Your task to perform on an android device: Go to Reddit.com Image 0: 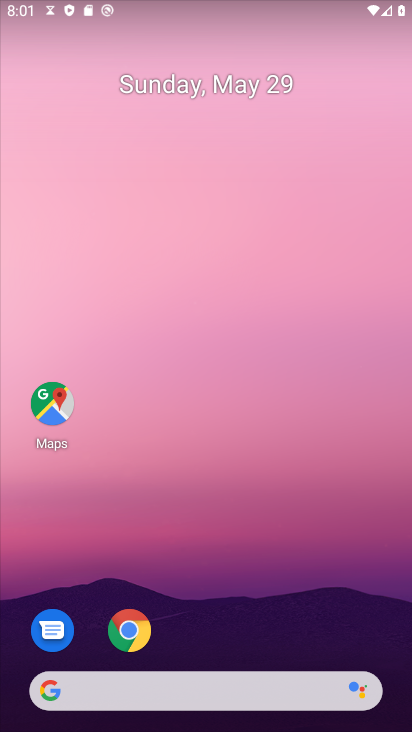
Step 0: click (143, 639)
Your task to perform on an android device: Go to Reddit.com Image 1: 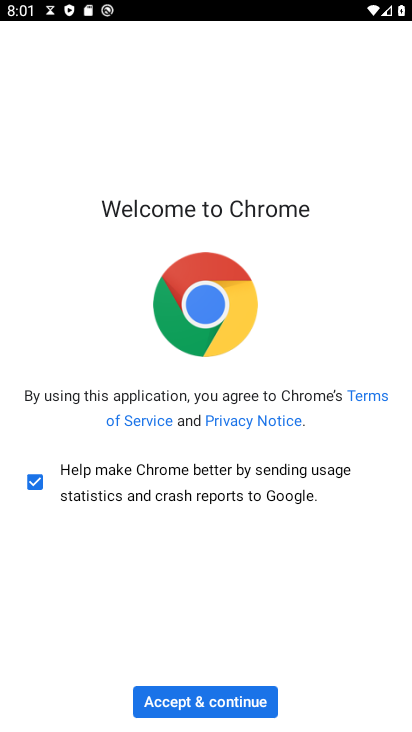
Step 1: click (232, 688)
Your task to perform on an android device: Go to Reddit.com Image 2: 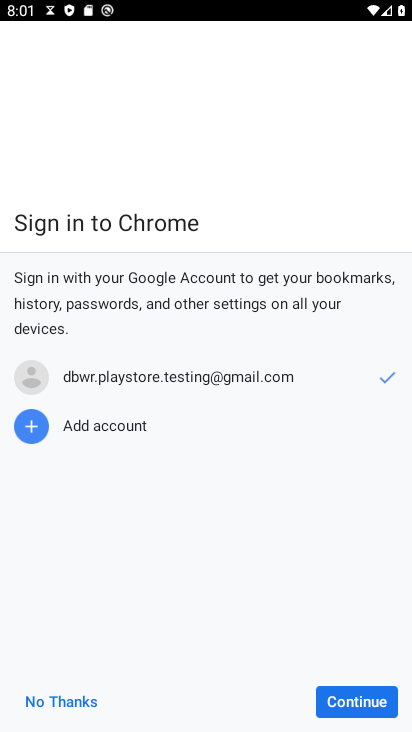
Step 2: click (350, 692)
Your task to perform on an android device: Go to Reddit.com Image 3: 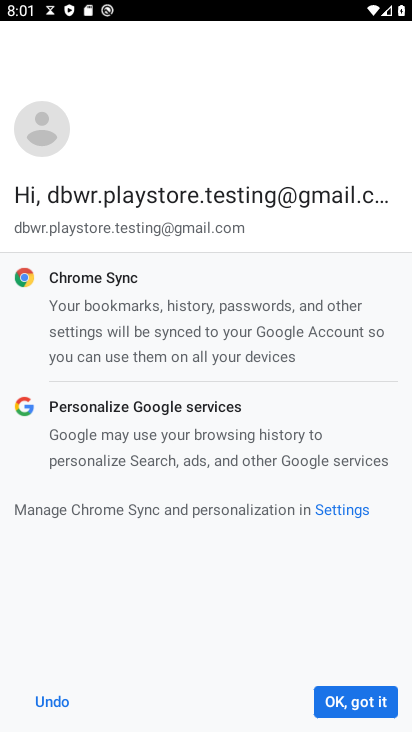
Step 3: click (364, 705)
Your task to perform on an android device: Go to Reddit.com Image 4: 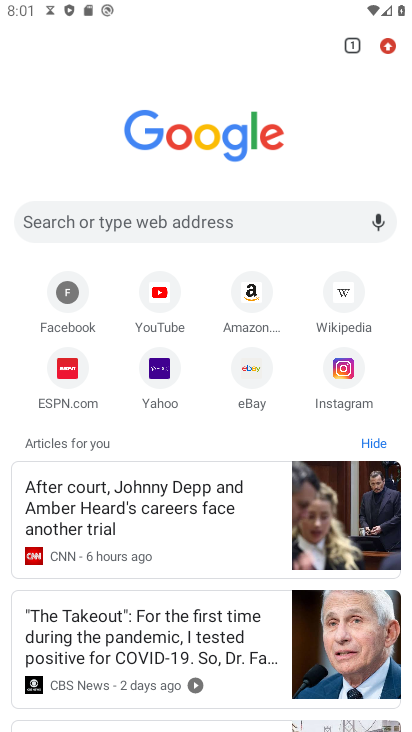
Step 4: click (234, 227)
Your task to perform on an android device: Go to Reddit.com Image 5: 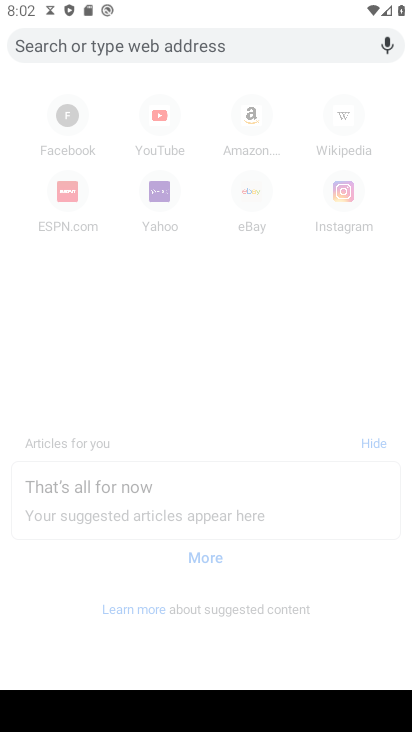
Step 5: type "reddit.com"
Your task to perform on an android device: Go to Reddit.com Image 6: 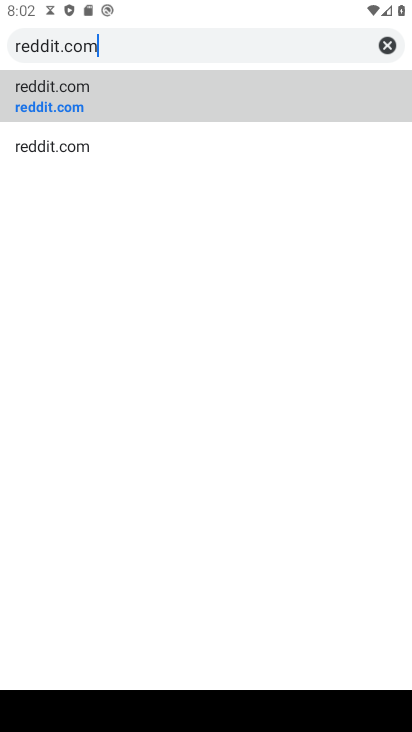
Step 6: click (73, 97)
Your task to perform on an android device: Go to Reddit.com Image 7: 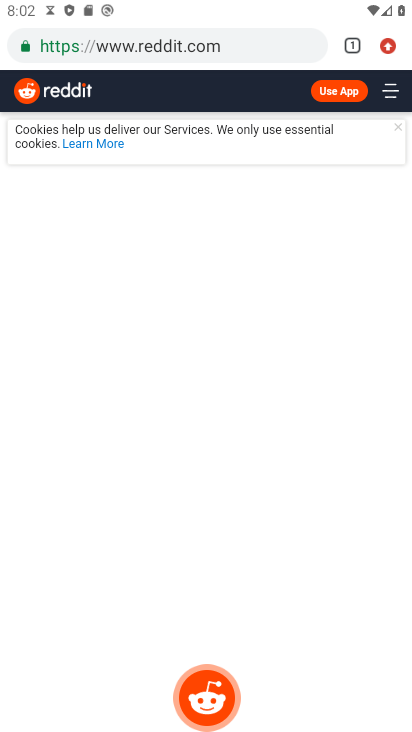
Step 7: task complete